Your task to perform on an android device: Search for "logitech g933" on ebay, select the first entry, and add it to the cart. Image 0: 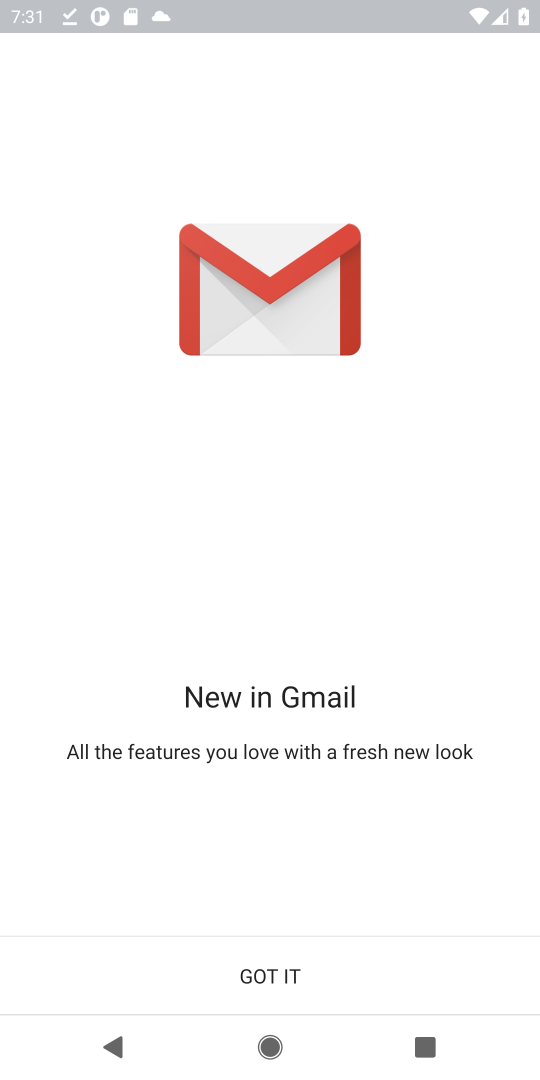
Step 0: click (327, 951)
Your task to perform on an android device: Search for "logitech g933" on ebay, select the first entry, and add it to the cart. Image 1: 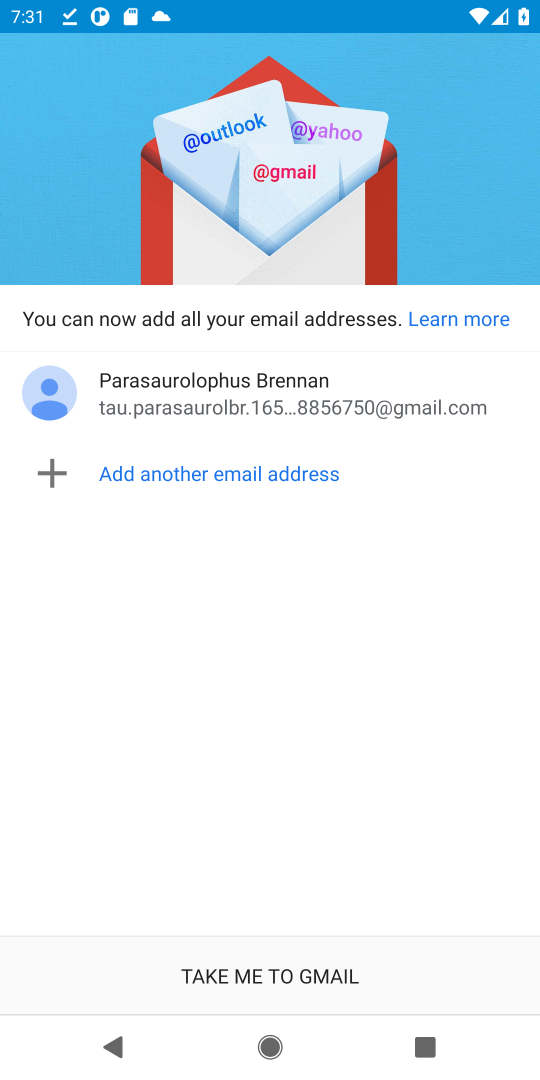
Step 1: press home button
Your task to perform on an android device: Search for "logitech g933" on ebay, select the first entry, and add it to the cart. Image 2: 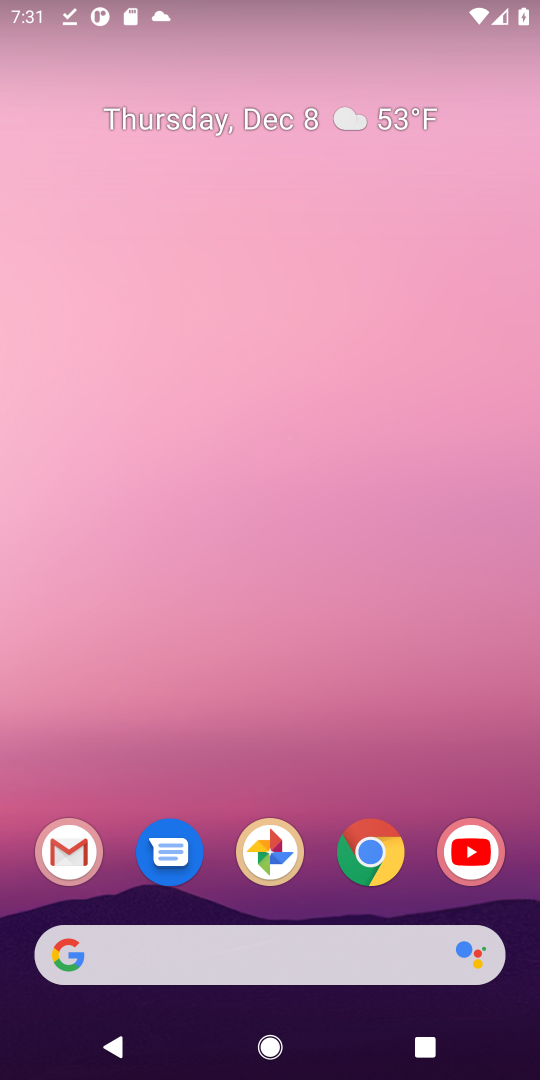
Step 2: click (358, 963)
Your task to perform on an android device: Search for "logitech g933" on ebay, select the first entry, and add it to the cart. Image 3: 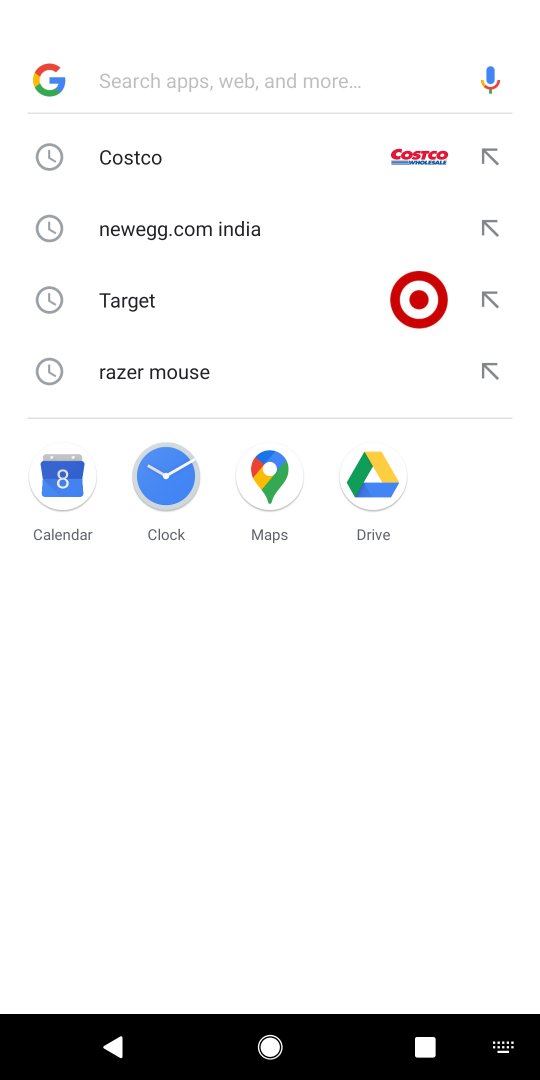
Step 3: type "ebay.com"
Your task to perform on an android device: Search for "logitech g933" on ebay, select the first entry, and add it to the cart. Image 4: 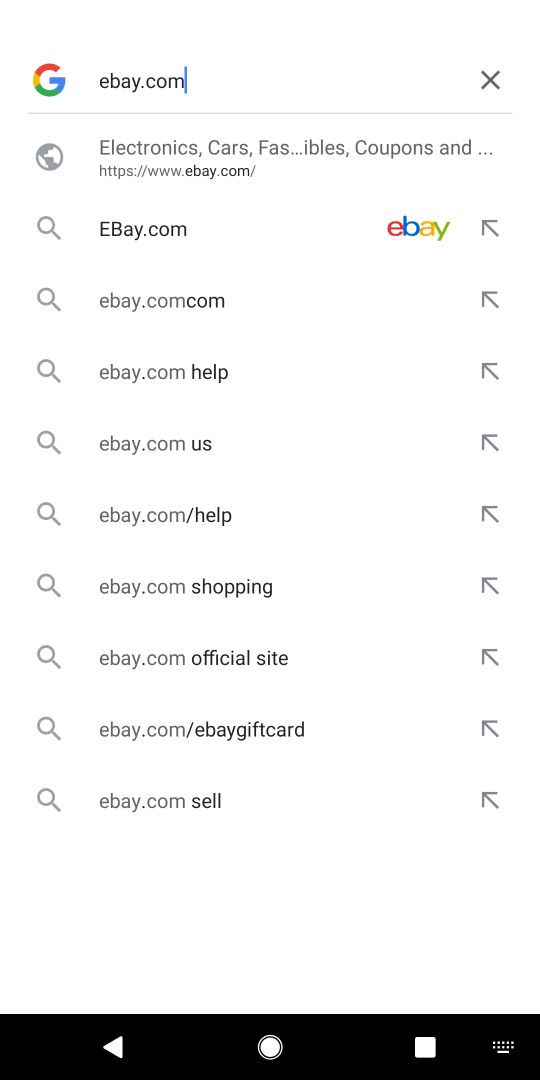
Step 4: click (281, 166)
Your task to perform on an android device: Search for "logitech g933" on ebay, select the first entry, and add it to the cart. Image 5: 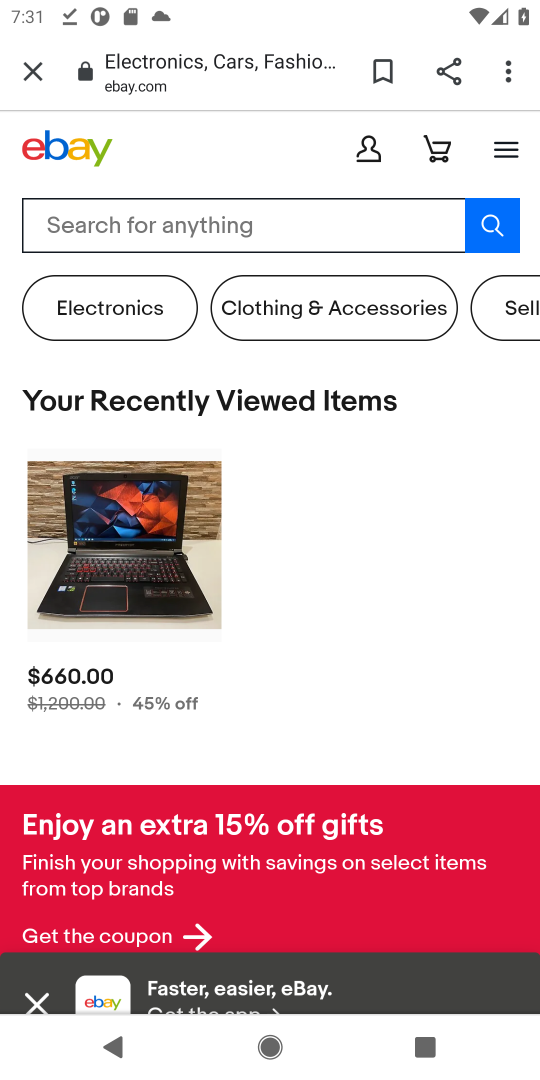
Step 5: click (175, 228)
Your task to perform on an android device: Search for "logitech g933" on ebay, select the first entry, and add it to the cart. Image 6: 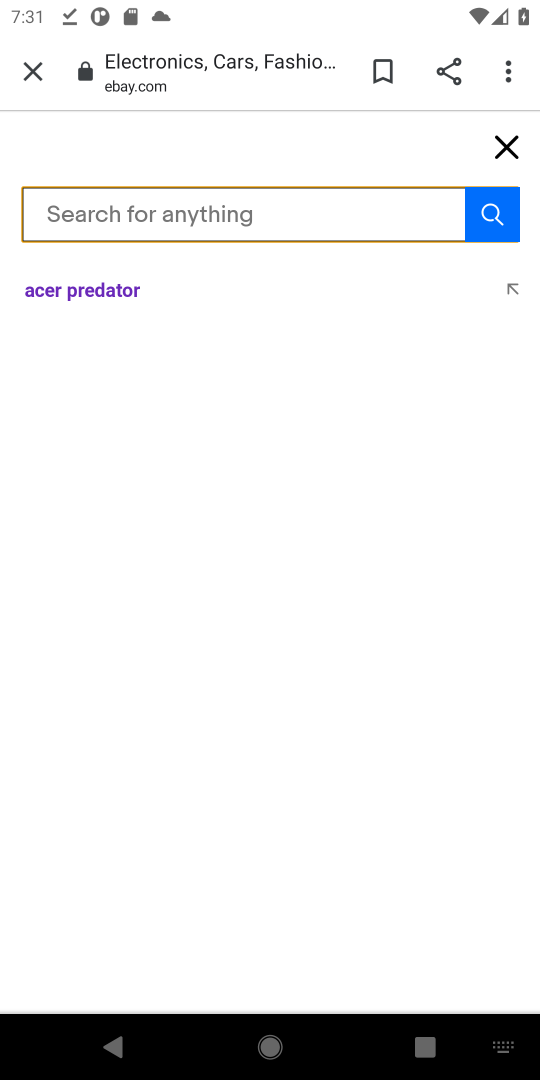
Step 6: type "logitech g933"
Your task to perform on an android device: Search for "logitech g933" on ebay, select the first entry, and add it to the cart. Image 7: 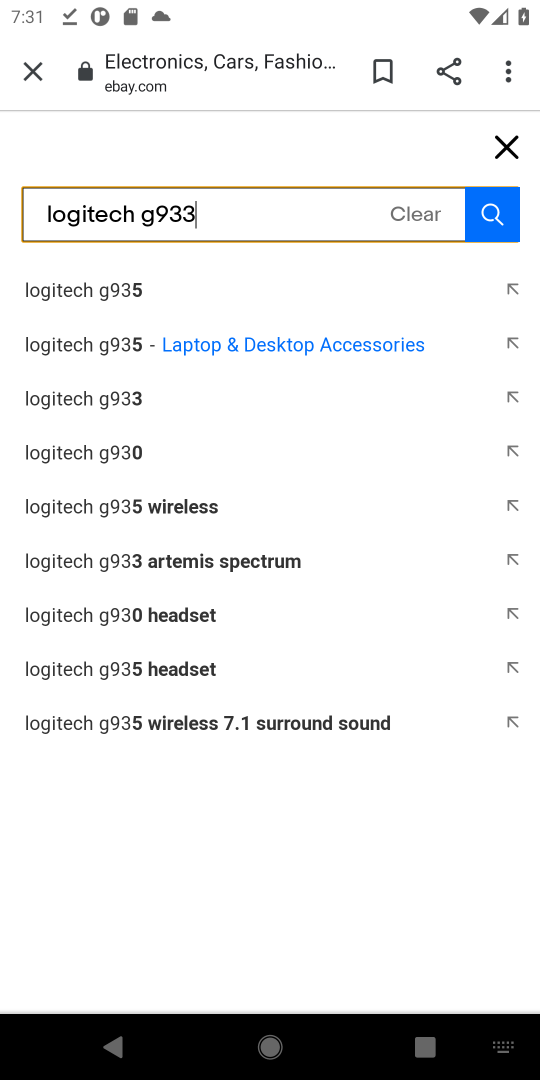
Step 7: click (491, 219)
Your task to perform on an android device: Search for "logitech g933" on ebay, select the first entry, and add it to the cart. Image 8: 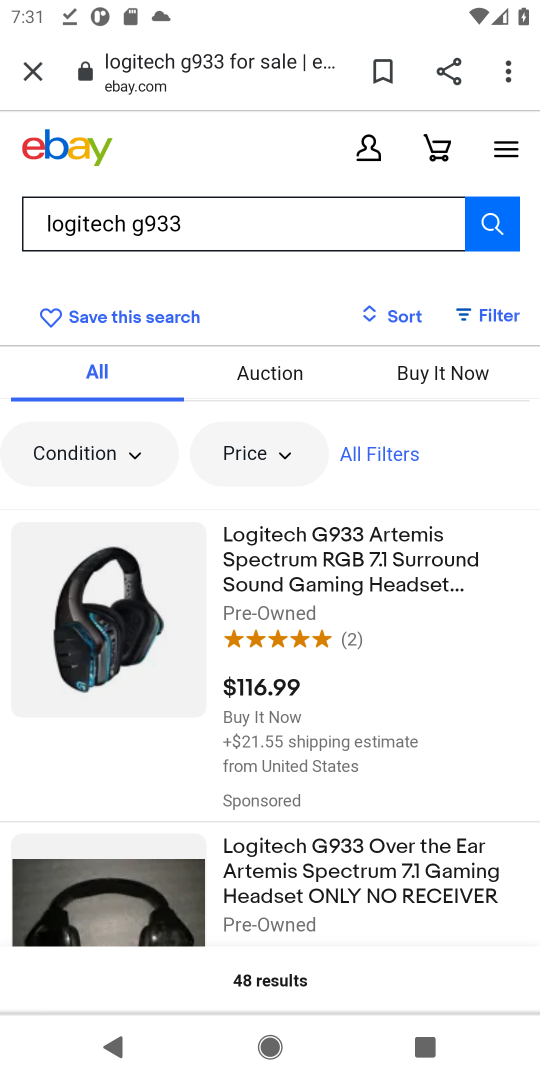
Step 8: click (274, 568)
Your task to perform on an android device: Search for "logitech g933" on ebay, select the first entry, and add it to the cart. Image 9: 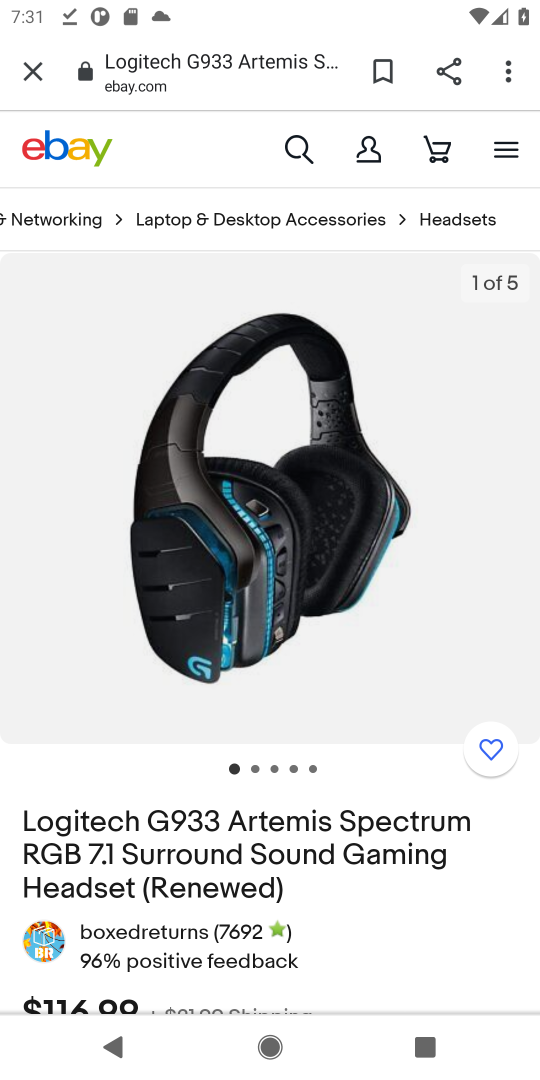
Step 9: drag from (234, 751) to (271, 264)
Your task to perform on an android device: Search for "logitech g933" on ebay, select the first entry, and add it to the cart. Image 10: 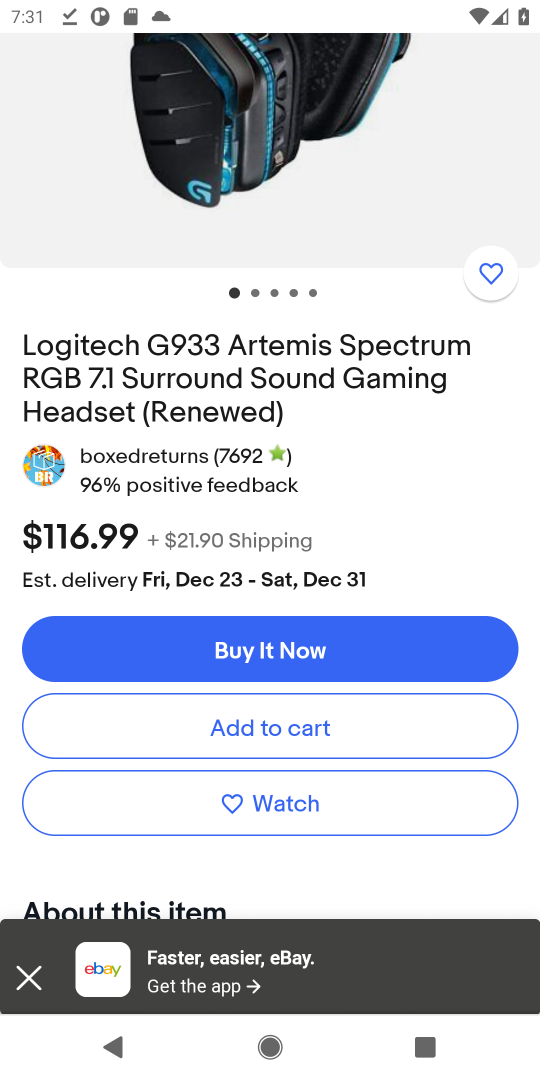
Step 10: click (329, 723)
Your task to perform on an android device: Search for "logitech g933" on ebay, select the first entry, and add it to the cart. Image 11: 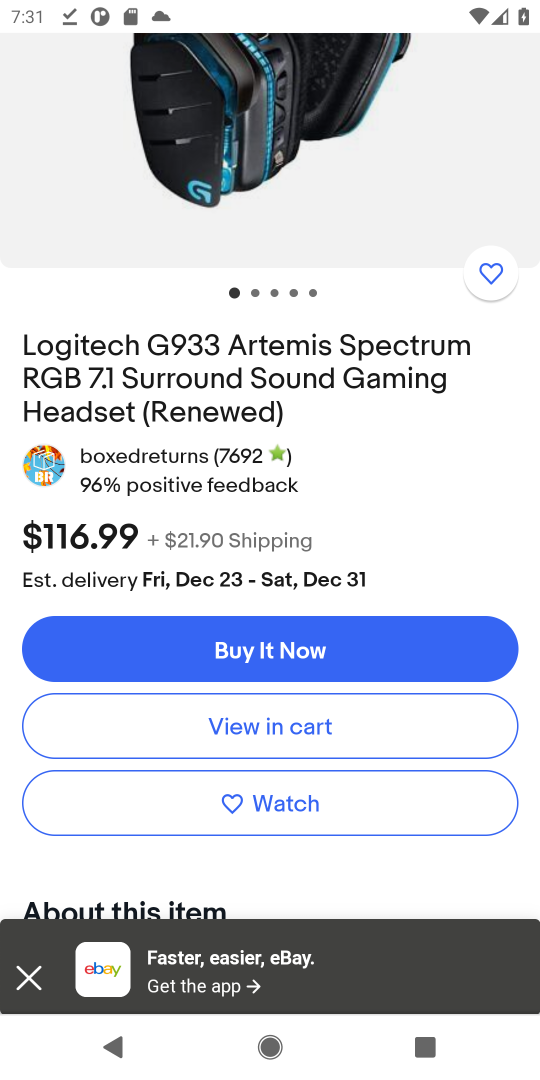
Step 11: task complete